Your task to perform on an android device: What's the weather going to be this weekend? Image 0: 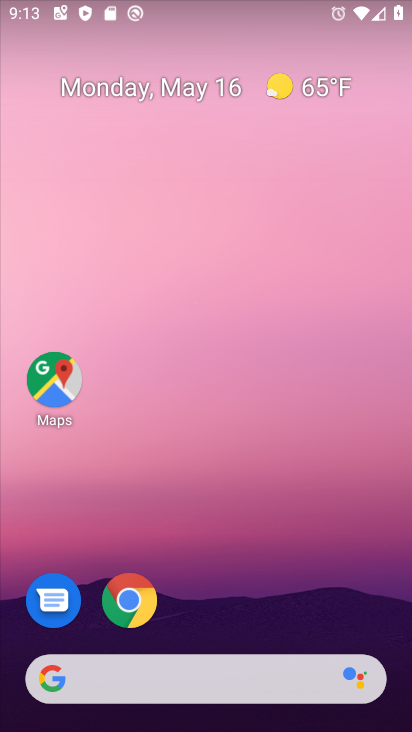
Step 0: drag from (203, 639) to (271, 51)
Your task to perform on an android device: What's the weather going to be this weekend? Image 1: 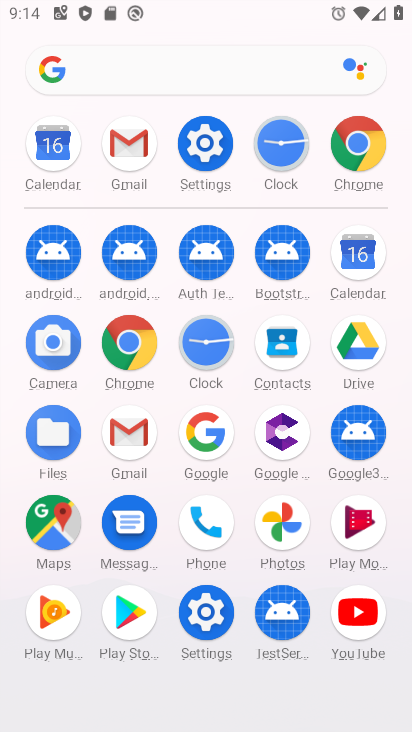
Step 1: click (205, 72)
Your task to perform on an android device: What's the weather going to be this weekend? Image 2: 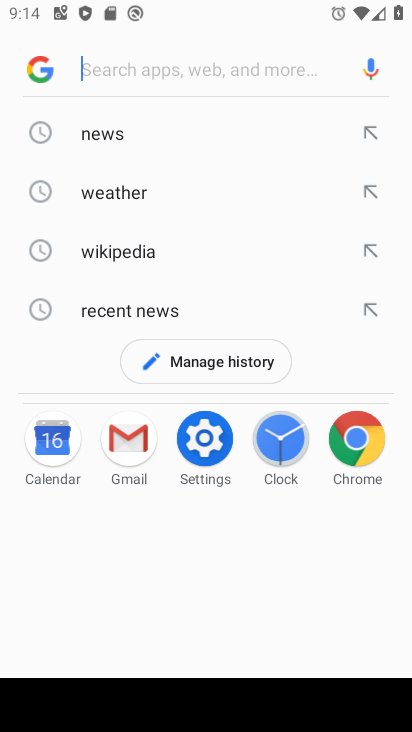
Step 2: type "weather going to be this weekend"
Your task to perform on an android device: What's the weather going to be this weekend? Image 3: 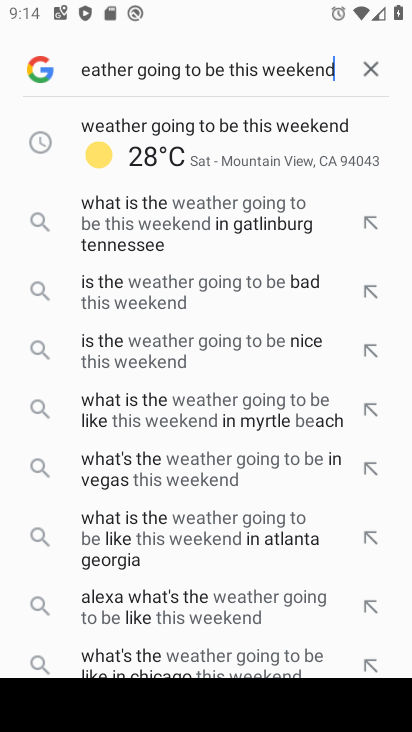
Step 3: click (164, 130)
Your task to perform on an android device: What's the weather going to be this weekend? Image 4: 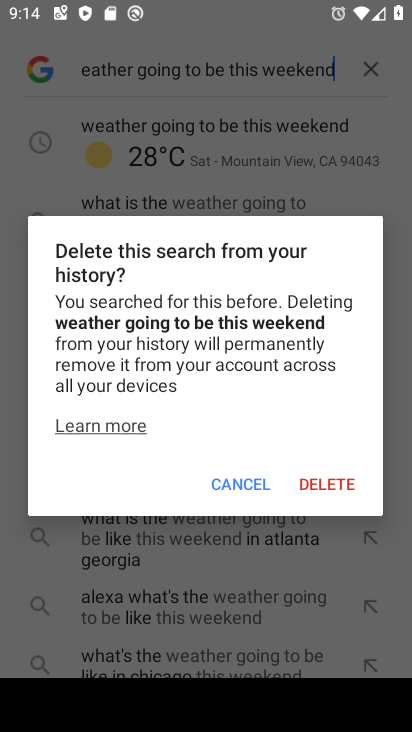
Step 4: click (255, 476)
Your task to perform on an android device: What's the weather going to be this weekend? Image 5: 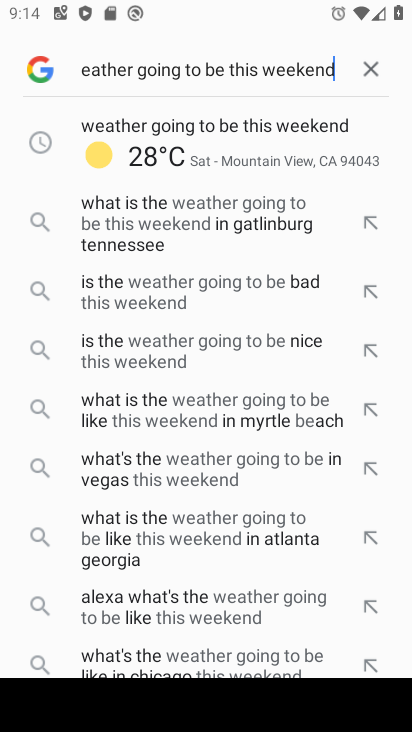
Step 5: click (53, 150)
Your task to perform on an android device: What's the weather going to be this weekend? Image 6: 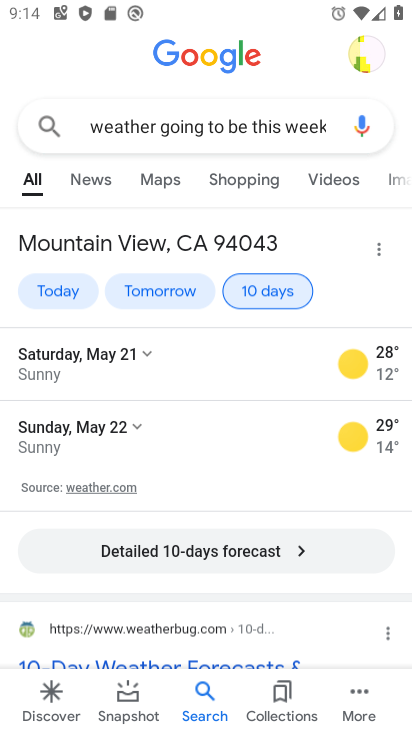
Step 6: task complete